Your task to perform on an android device: turn notification dots off Image 0: 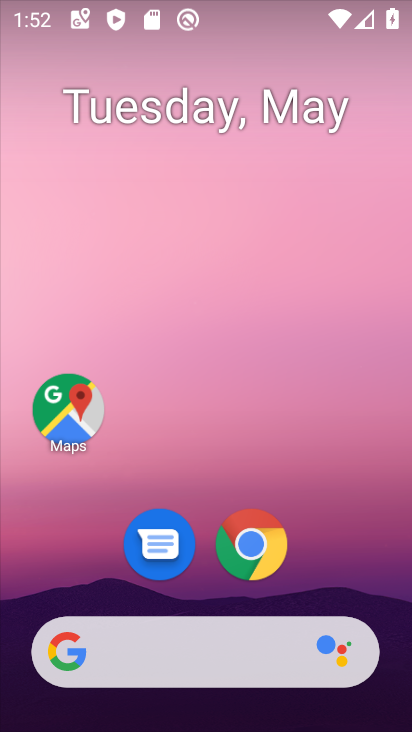
Step 0: drag from (346, 298) to (366, 43)
Your task to perform on an android device: turn notification dots off Image 1: 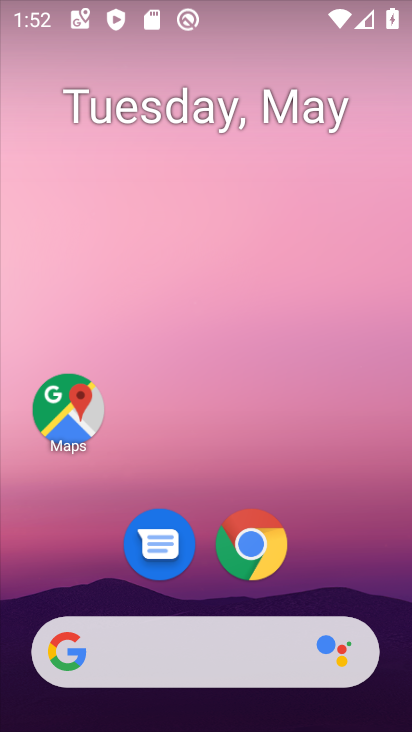
Step 1: drag from (352, 295) to (375, 8)
Your task to perform on an android device: turn notification dots off Image 2: 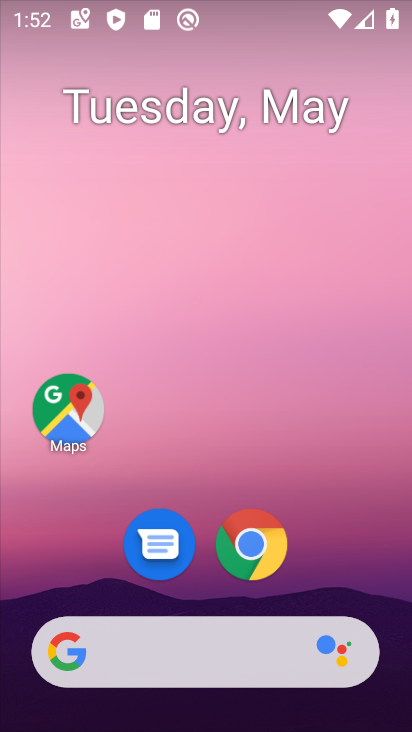
Step 2: drag from (340, 542) to (317, 0)
Your task to perform on an android device: turn notification dots off Image 3: 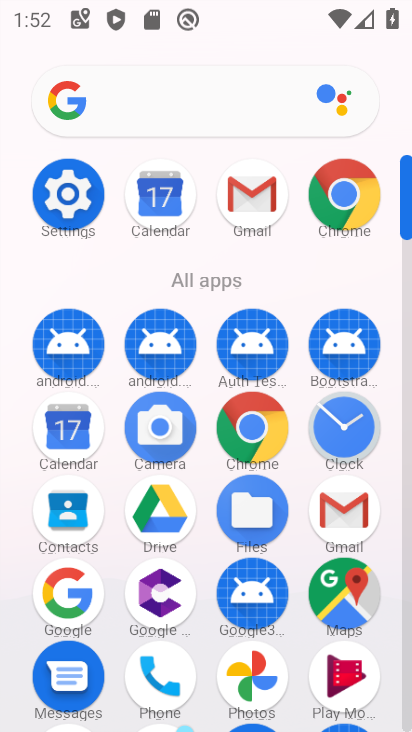
Step 3: click (83, 218)
Your task to perform on an android device: turn notification dots off Image 4: 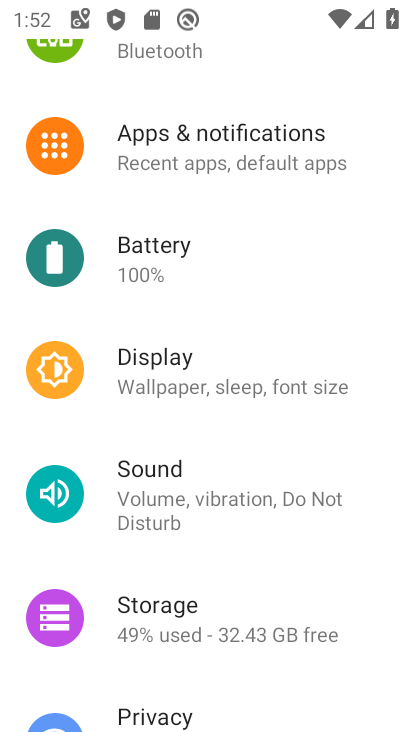
Step 4: drag from (271, 138) to (264, 537)
Your task to perform on an android device: turn notification dots off Image 5: 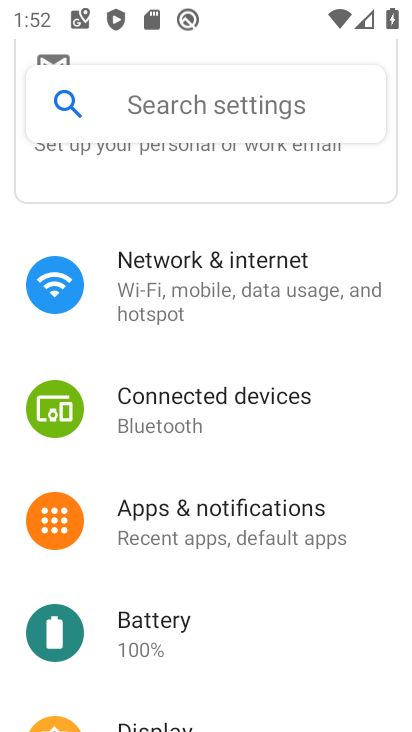
Step 5: click (266, 534)
Your task to perform on an android device: turn notification dots off Image 6: 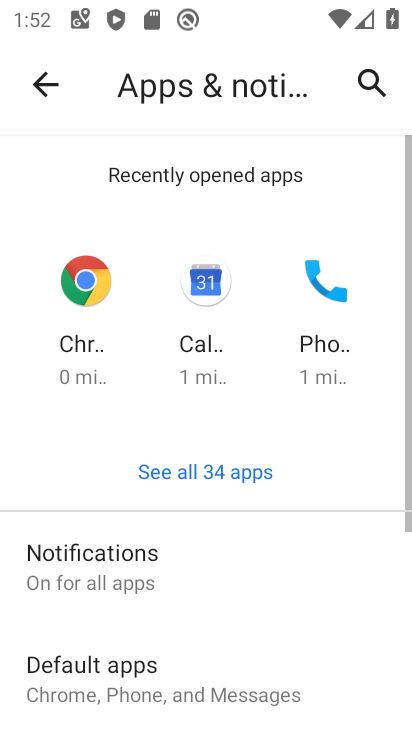
Step 6: drag from (265, 622) to (281, 351)
Your task to perform on an android device: turn notification dots off Image 7: 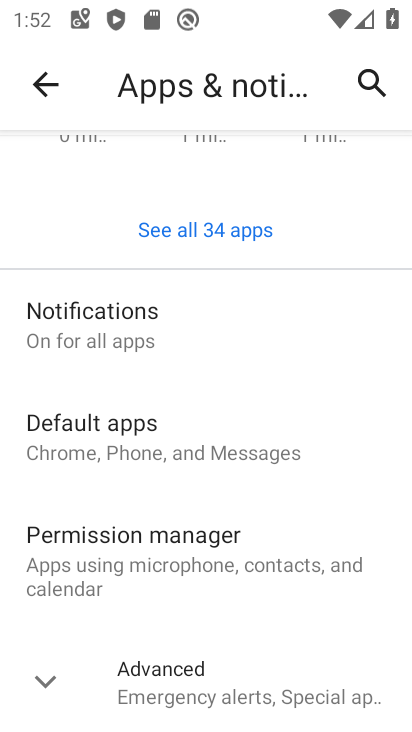
Step 7: click (123, 323)
Your task to perform on an android device: turn notification dots off Image 8: 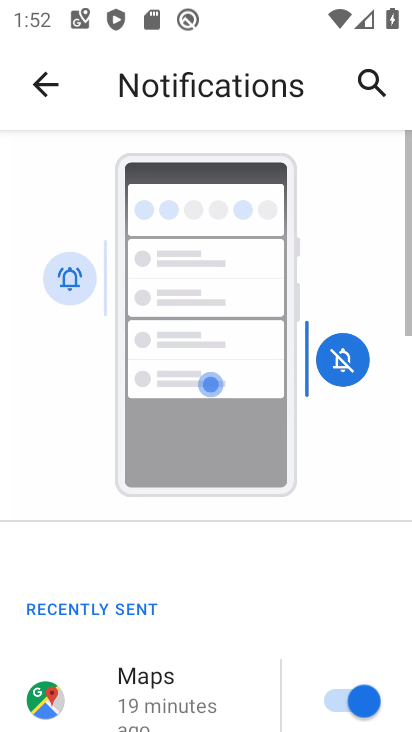
Step 8: drag from (230, 629) to (343, 35)
Your task to perform on an android device: turn notification dots off Image 9: 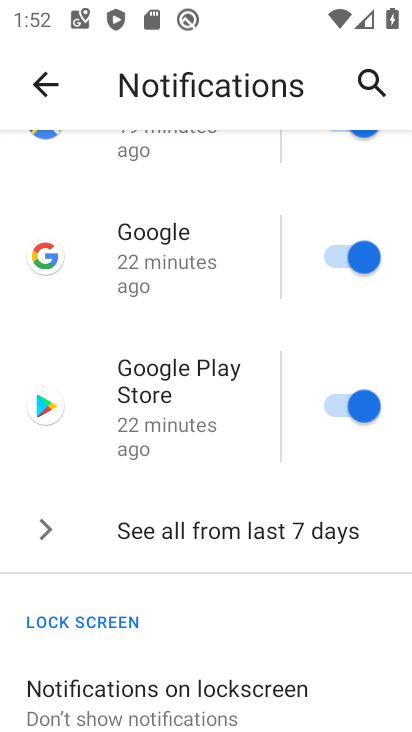
Step 9: drag from (212, 616) to (265, 113)
Your task to perform on an android device: turn notification dots off Image 10: 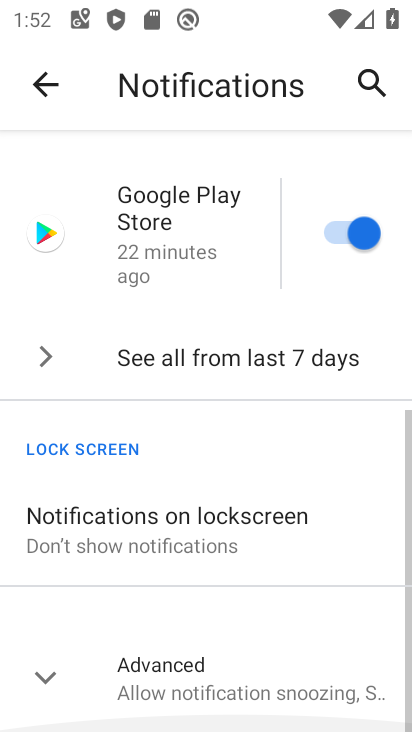
Step 10: click (146, 690)
Your task to perform on an android device: turn notification dots off Image 11: 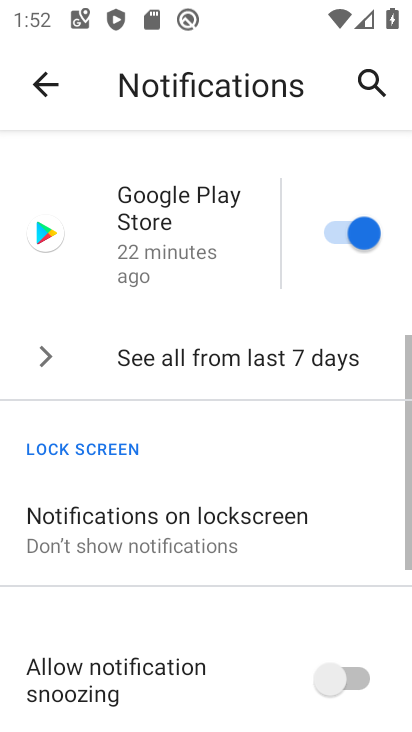
Step 11: drag from (261, 641) to (265, 186)
Your task to perform on an android device: turn notification dots off Image 12: 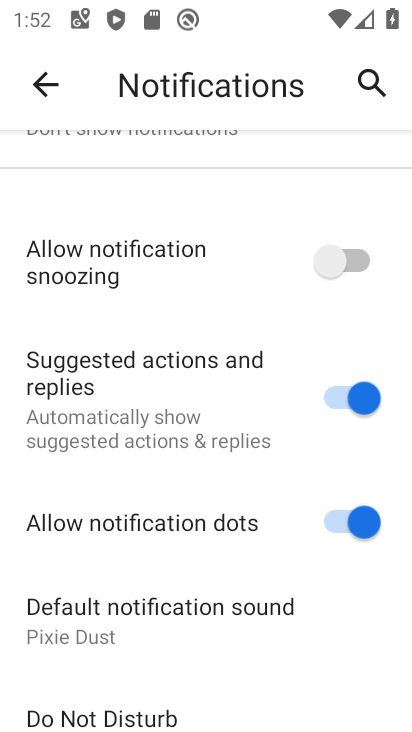
Step 12: click (371, 517)
Your task to perform on an android device: turn notification dots off Image 13: 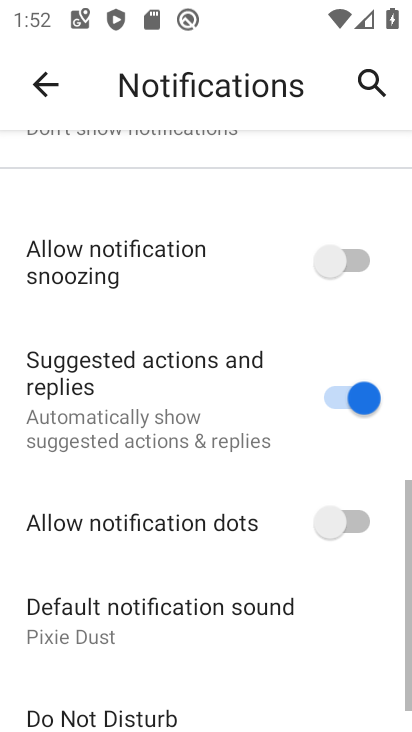
Step 13: task complete